Your task to perform on an android device: Go to Google Image 0: 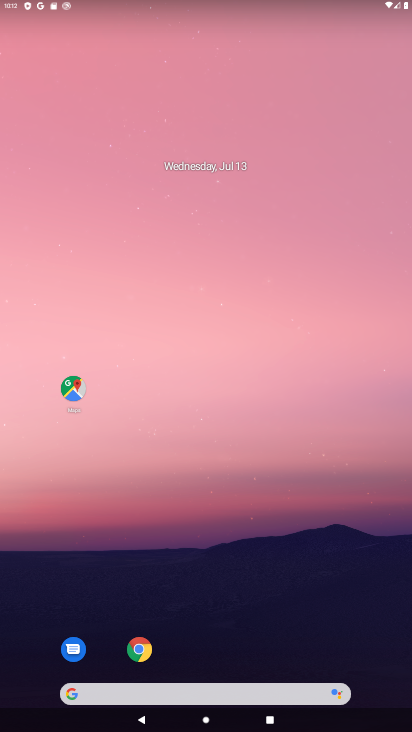
Step 0: drag from (228, 632) to (237, 31)
Your task to perform on an android device: Go to Google Image 1: 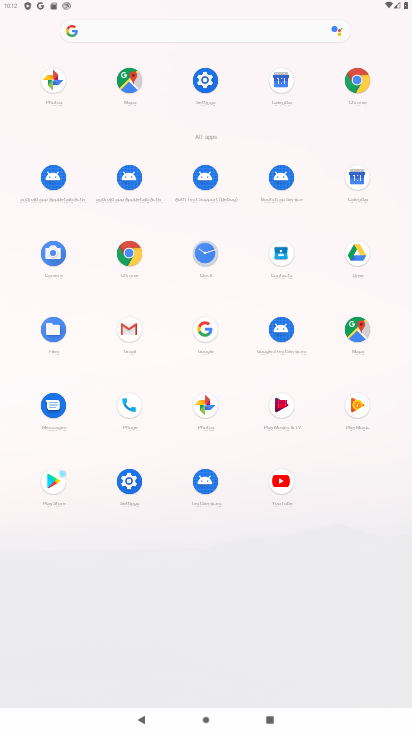
Step 1: click (197, 316)
Your task to perform on an android device: Go to Google Image 2: 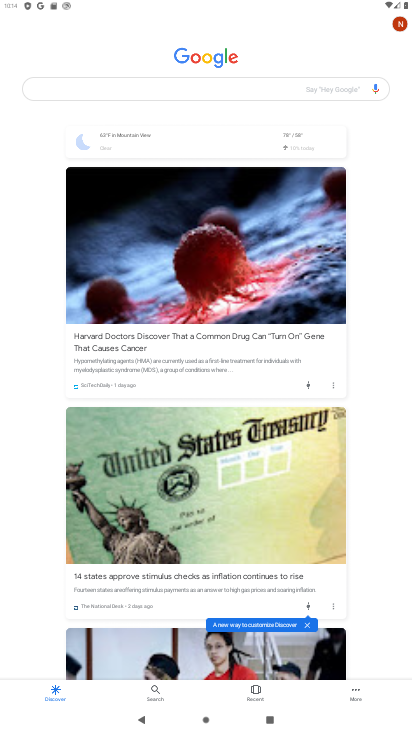
Step 2: task complete